Your task to perform on an android device: open the mobile data screen to see how much data has been used Image 0: 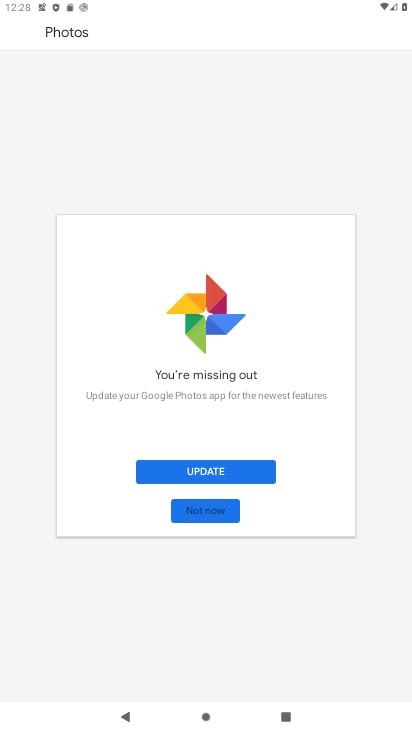
Step 0: press home button
Your task to perform on an android device: open the mobile data screen to see how much data has been used Image 1: 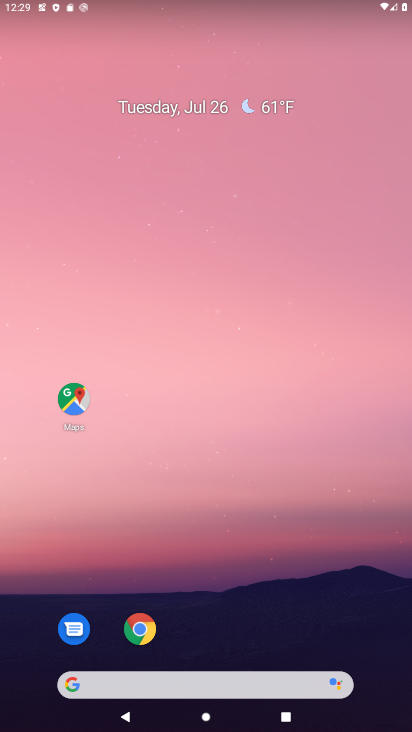
Step 1: drag from (210, 631) to (165, 146)
Your task to perform on an android device: open the mobile data screen to see how much data has been used Image 2: 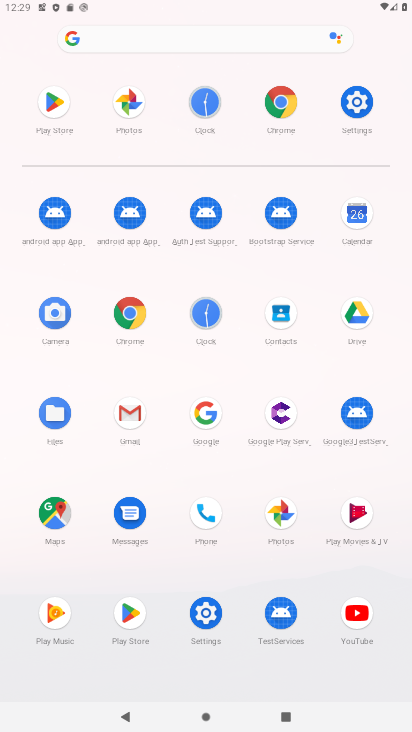
Step 2: click (349, 115)
Your task to perform on an android device: open the mobile data screen to see how much data has been used Image 3: 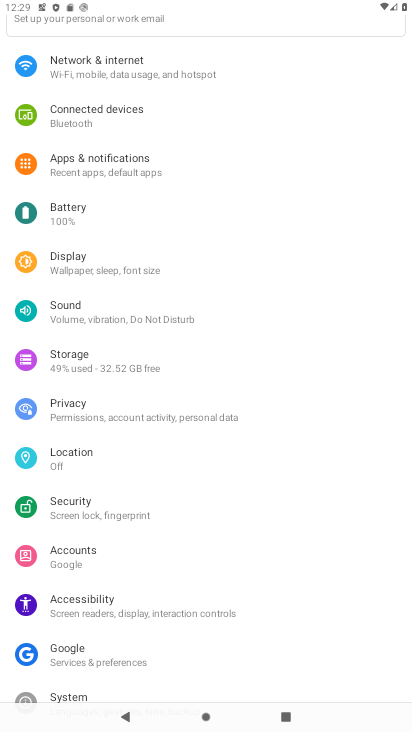
Step 3: click (109, 71)
Your task to perform on an android device: open the mobile data screen to see how much data has been used Image 4: 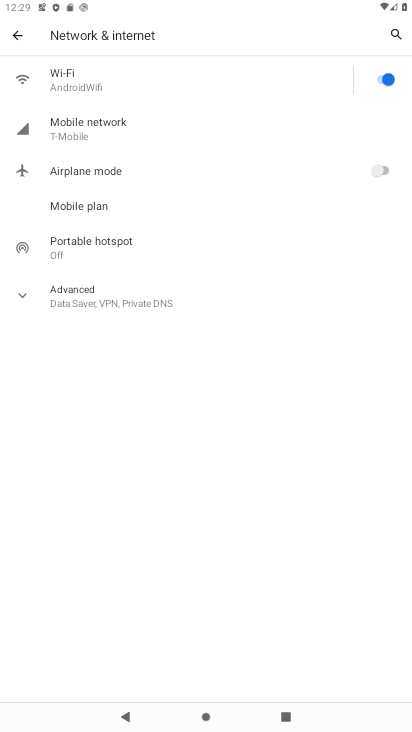
Step 4: click (117, 117)
Your task to perform on an android device: open the mobile data screen to see how much data has been used Image 5: 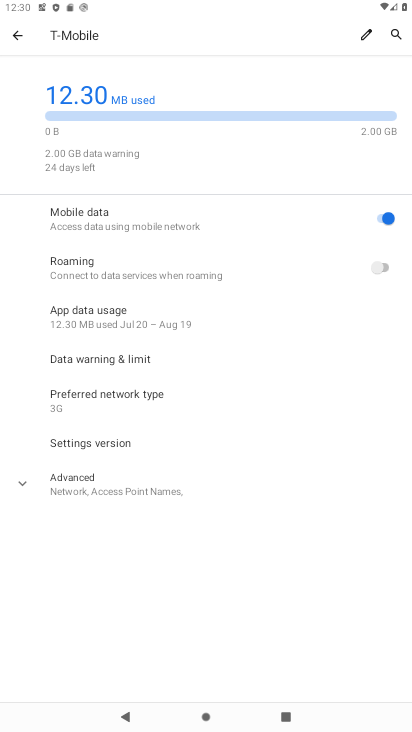
Step 5: click (154, 320)
Your task to perform on an android device: open the mobile data screen to see how much data has been used Image 6: 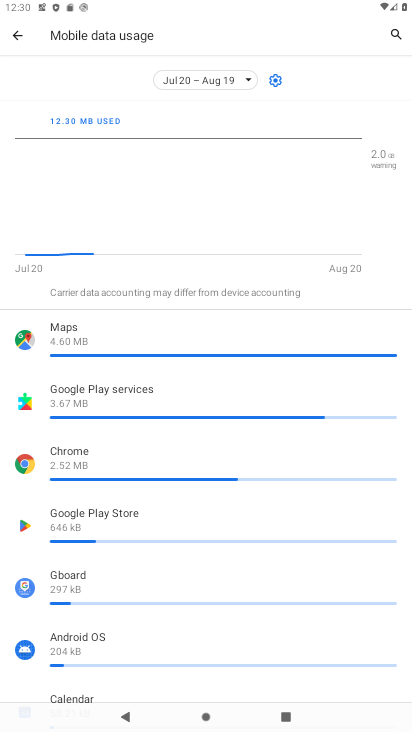
Step 6: task complete